Your task to perform on an android device: turn off sleep mode Image 0: 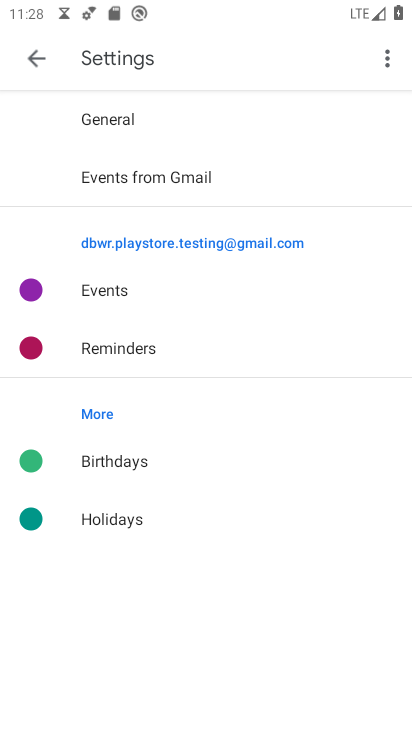
Step 0: task impossible